Your task to perform on an android device: change timer sound Image 0: 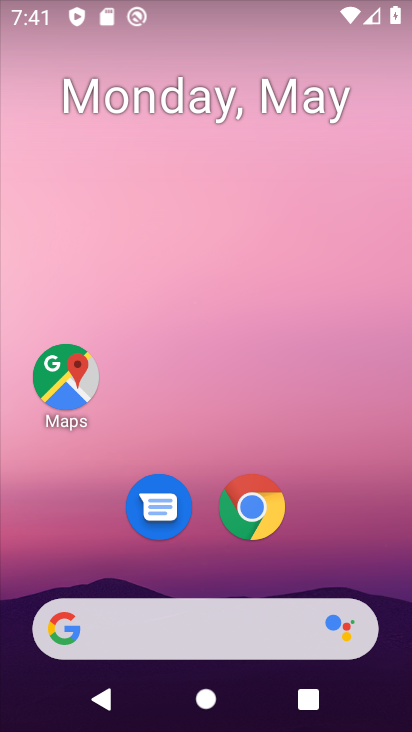
Step 0: drag from (322, 568) to (354, 1)
Your task to perform on an android device: change timer sound Image 1: 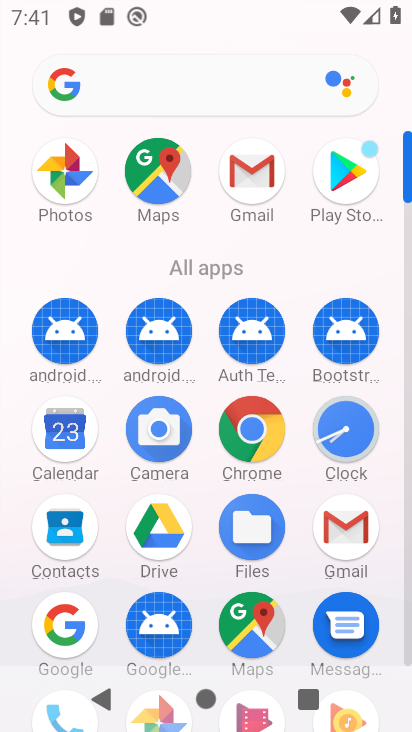
Step 1: click (351, 427)
Your task to perform on an android device: change timer sound Image 2: 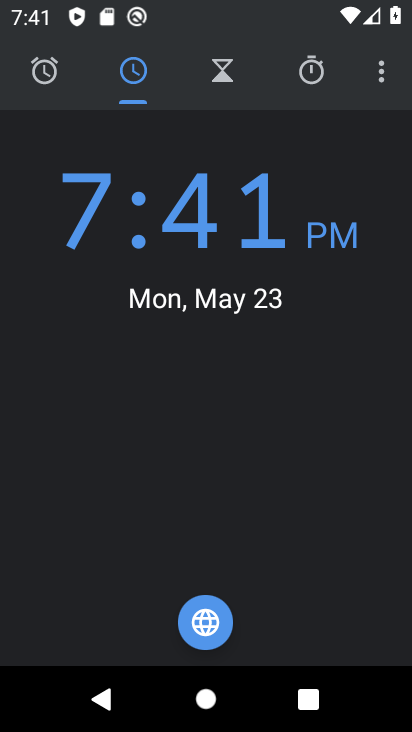
Step 2: click (381, 73)
Your task to perform on an android device: change timer sound Image 3: 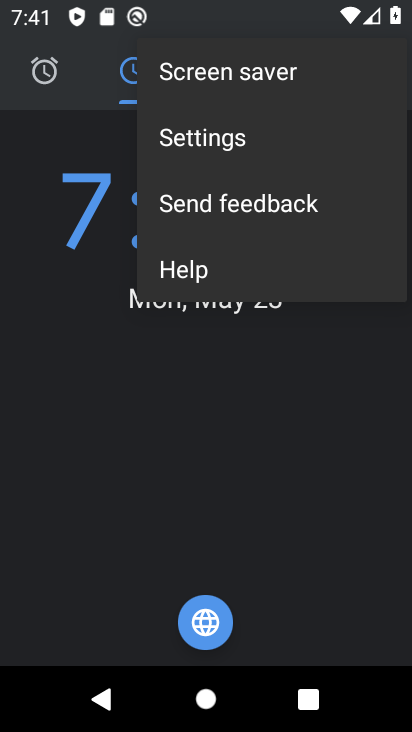
Step 3: click (220, 140)
Your task to perform on an android device: change timer sound Image 4: 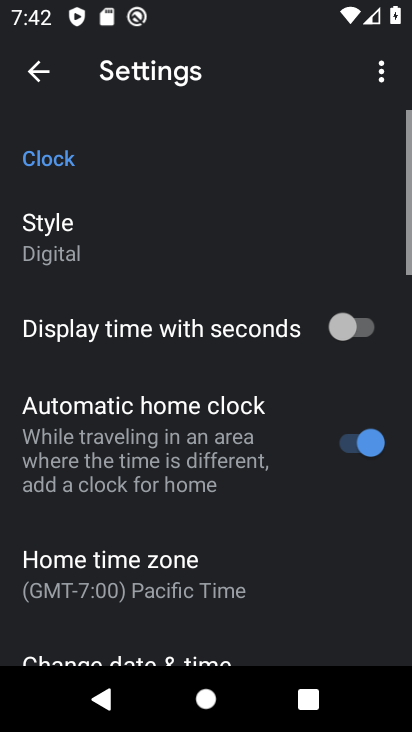
Step 4: drag from (113, 519) to (155, 63)
Your task to perform on an android device: change timer sound Image 5: 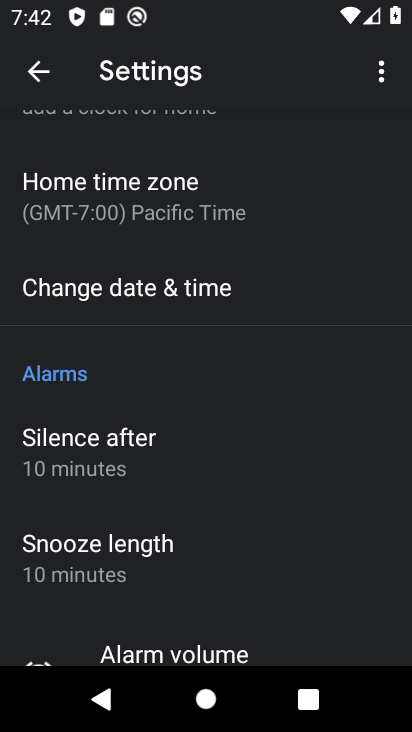
Step 5: drag from (99, 464) to (103, 93)
Your task to perform on an android device: change timer sound Image 6: 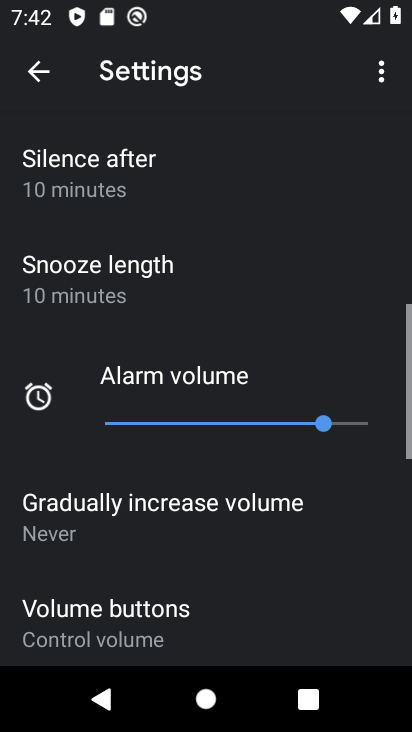
Step 6: drag from (99, 507) to (114, 158)
Your task to perform on an android device: change timer sound Image 7: 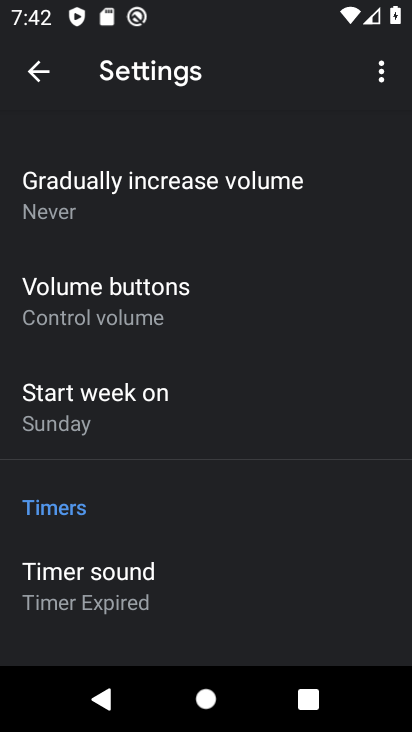
Step 7: click (96, 579)
Your task to perform on an android device: change timer sound Image 8: 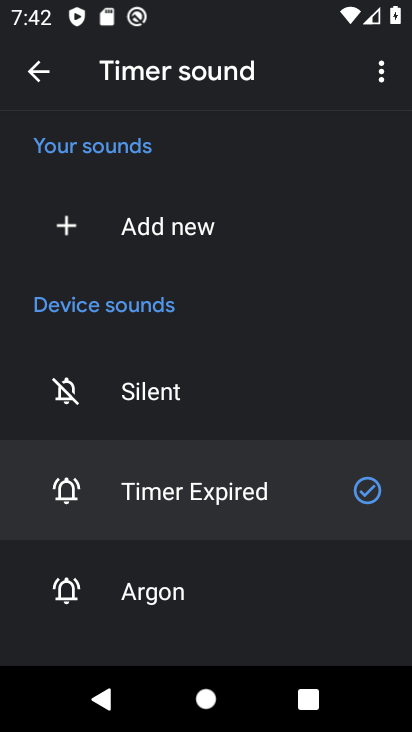
Step 8: click (151, 598)
Your task to perform on an android device: change timer sound Image 9: 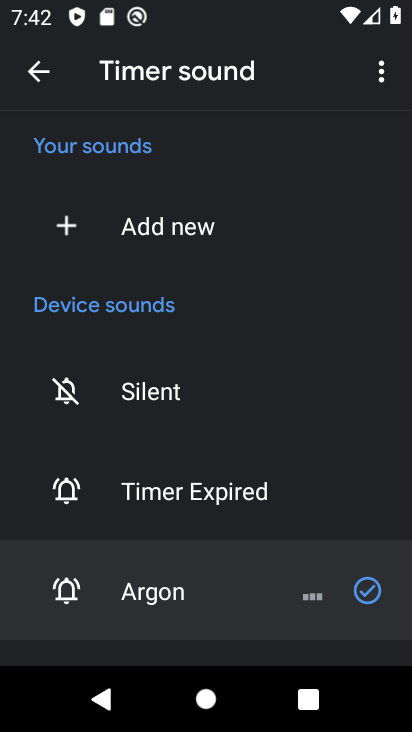
Step 9: task complete